Your task to perform on an android device: toggle priority inbox in the gmail app Image 0: 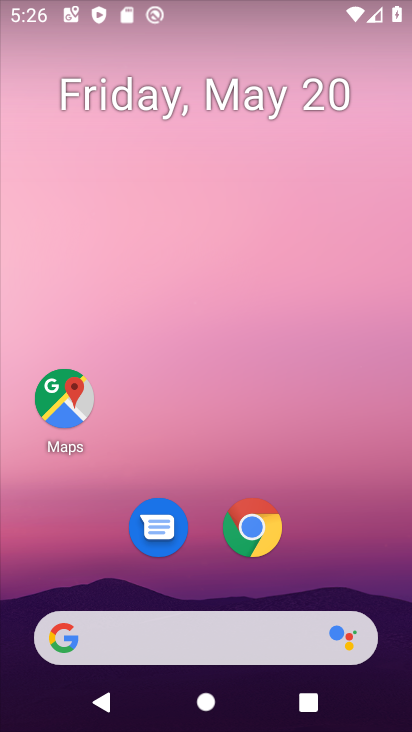
Step 0: drag from (275, 632) to (297, 8)
Your task to perform on an android device: toggle priority inbox in the gmail app Image 1: 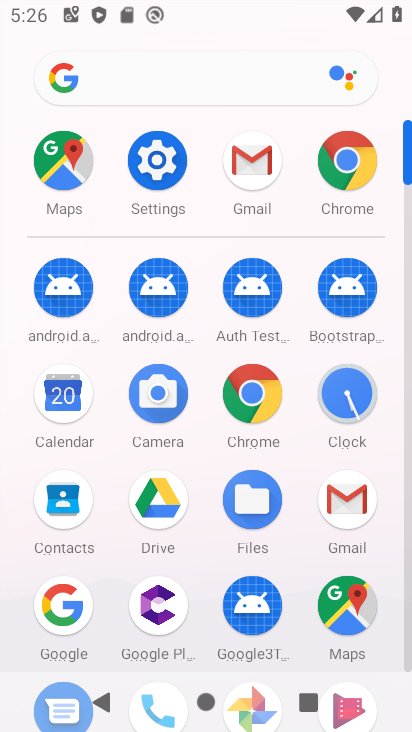
Step 1: click (348, 496)
Your task to perform on an android device: toggle priority inbox in the gmail app Image 2: 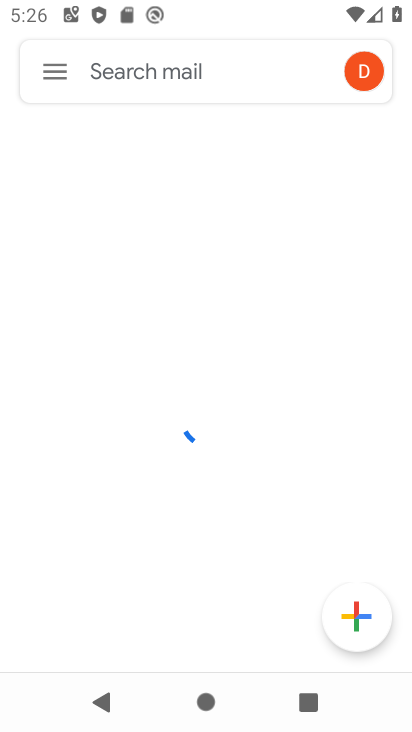
Step 2: click (54, 72)
Your task to perform on an android device: toggle priority inbox in the gmail app Image 3: 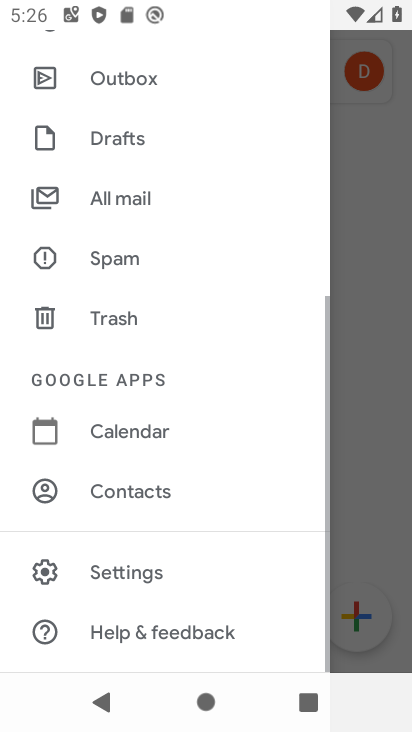
Step 3: click (155, 570)
Your task to perform on an android device: toggle priority inbox in the gmail app Image 4: 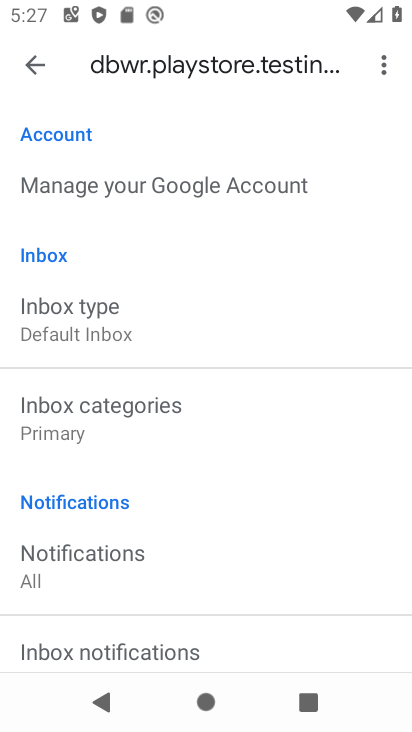
Step 4: click (138, 313)
Your task to perform on an android device: toggle priority inbox in the gmail app Image 5: 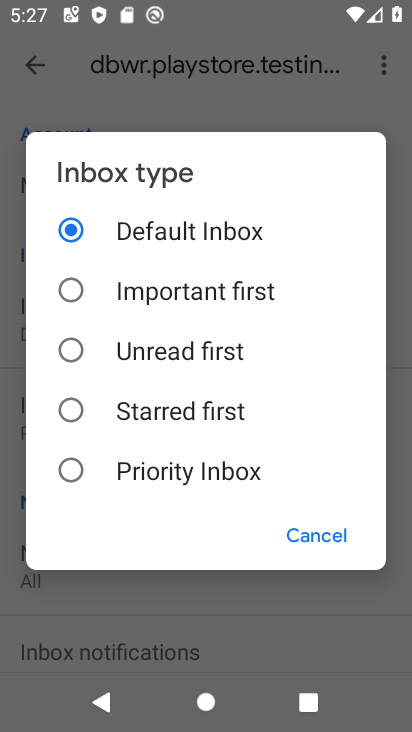
Step 5: click (67, 469)
Your task to perform on an android device: toggle priority inbox in the gmail app Image 6: 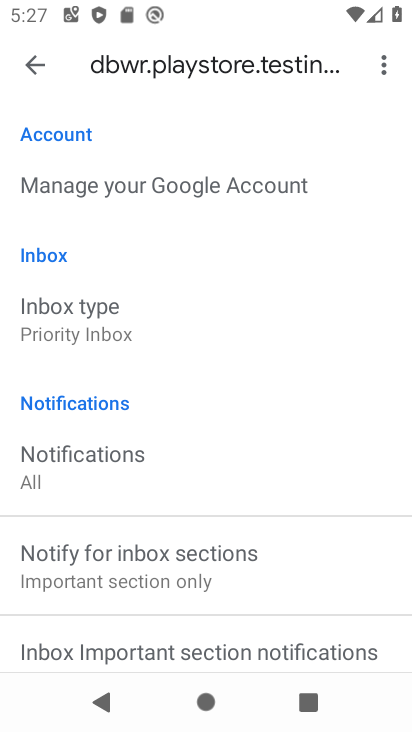
Step 6: task complete